Your task to perform on an android device: turn on the 12-hour format for clock Image 0: 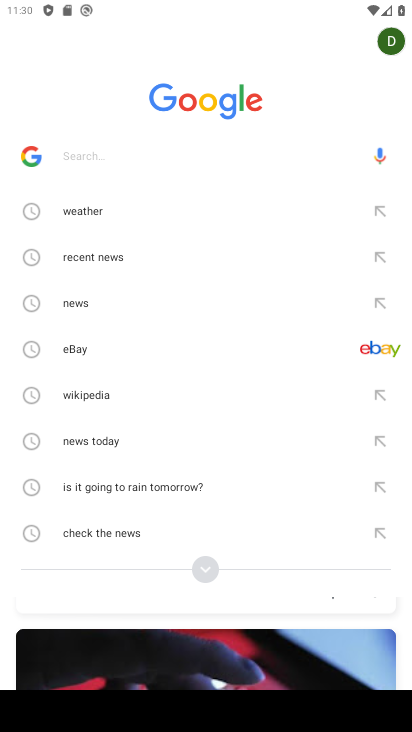
Step 0: press home button
Your task to perform on an android device: turn on the 12-hour format for clock Image 1: 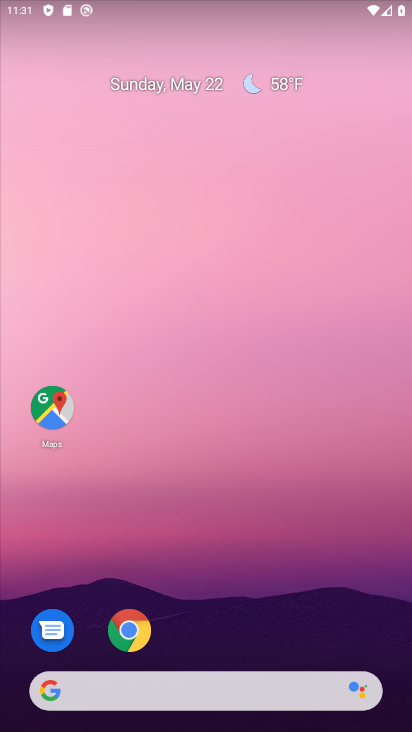
Step 1: drag from (197, 255) to (154, 61)
Your task to perform on an android device: turn on the 12-hour format for clock Image 2: 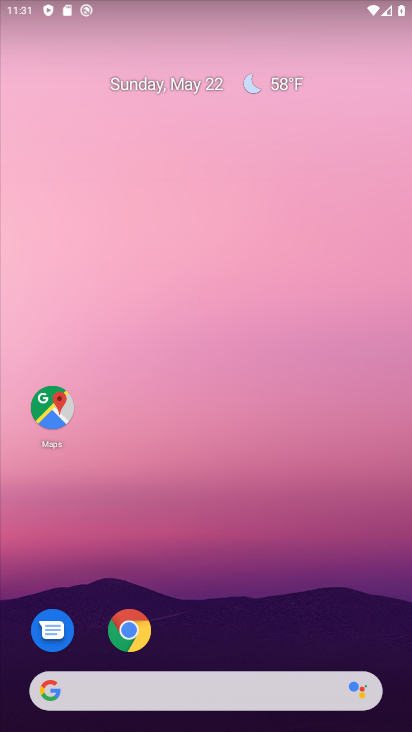
Step 2: drag from (251, 440) to (114, 35)
Your task to perform on an android device: turn on the 12-hour format for clock Image 3: 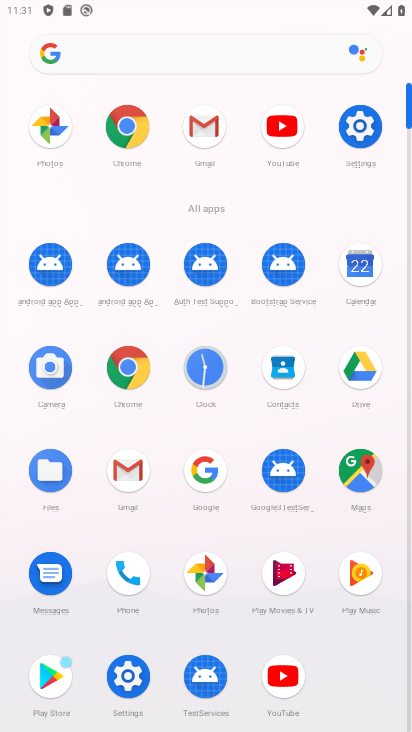
Step 3: click (196, 355)
Your task to perform on an android device: turn on the 12-hour format for clock Image 4: 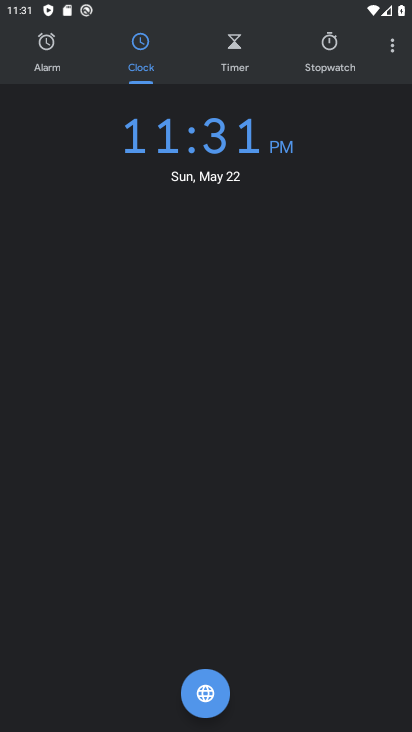
Step 4: click (396, 48)
Your task to perform on an android device: turn on the 12-hour format for clock Image 5: 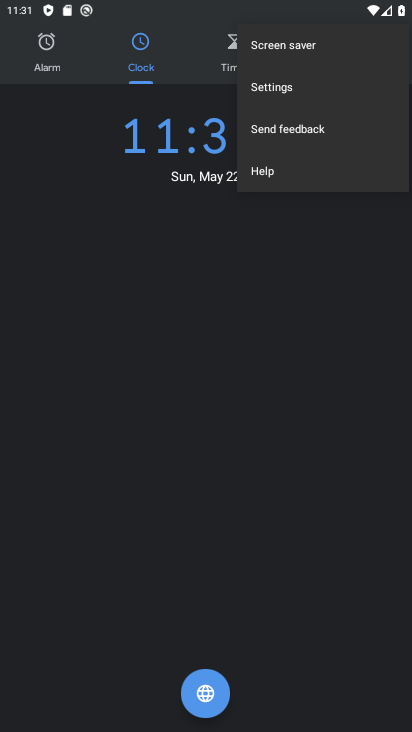
Step 5: click (288, 87)
Your task to perform on an android device: turn on the 12-hour format for clock Image 6: 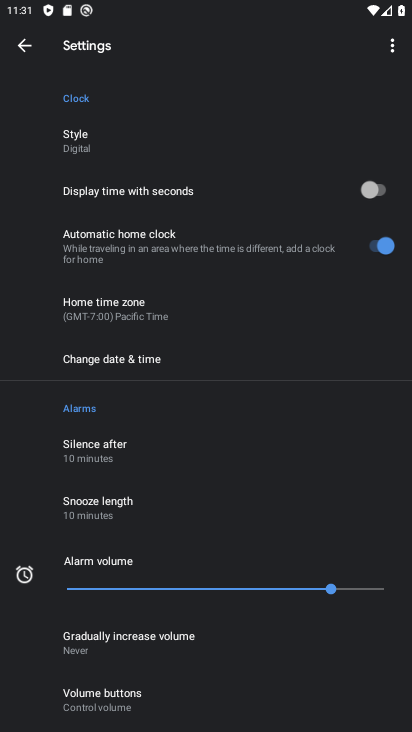
Step 6: click (204, 358)
Your task to perform on an android device: turn on the 12-hour format for clock Image 7: 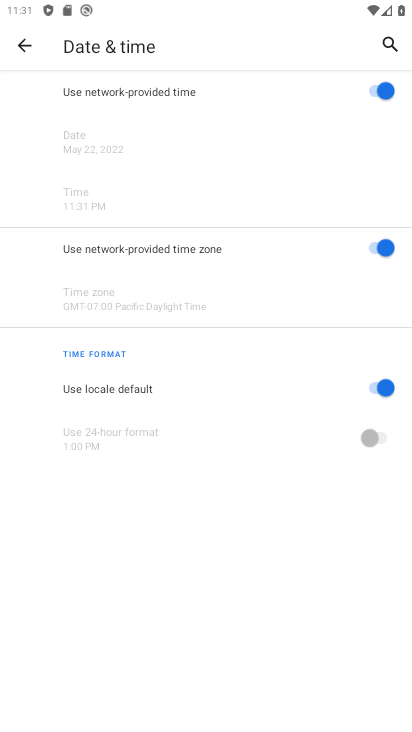
Step 7: task complete